Your task to perform on an android device: Search for Italian restaurants on Maps Image 0: 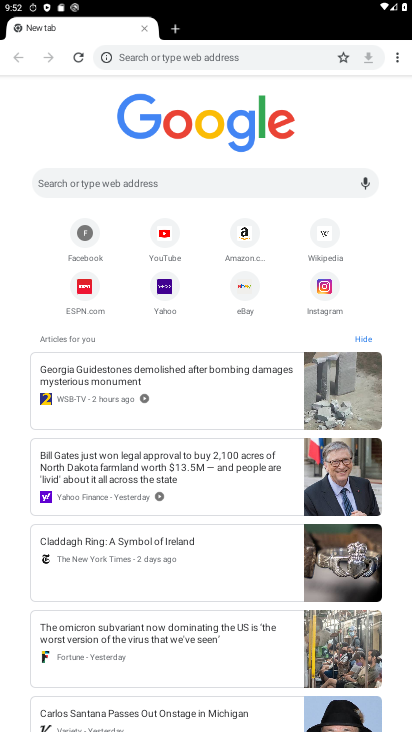
Step 0: press home button
Your task to perform on an android device: Search for Italian restaurants on Maps Image 1: 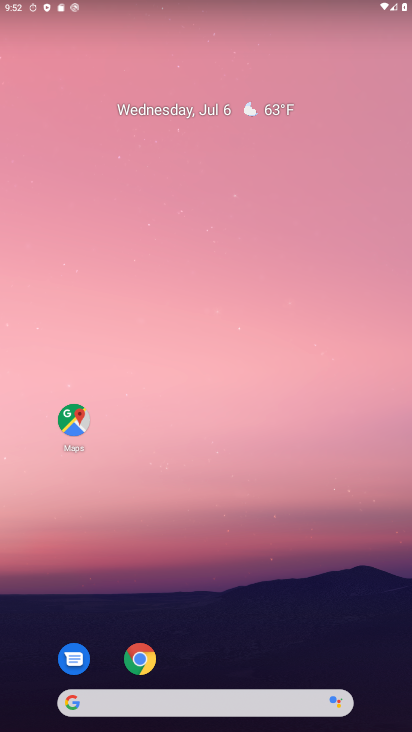
Step 1: drag from (192, 593) to (212, 389)
Your task to perform on an android device: Search for Italian restaurants on Maps Image 2: 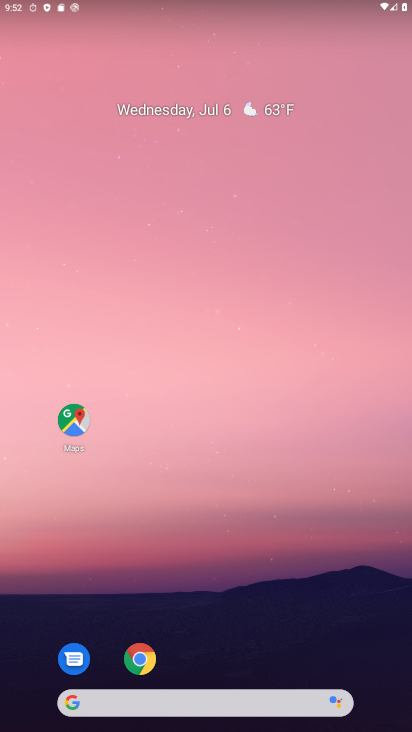
Step 2: drag from (178, 645) to (230, 286)
Your task to perform on an android device: Search for Italian restaurants on Maps Image 3: 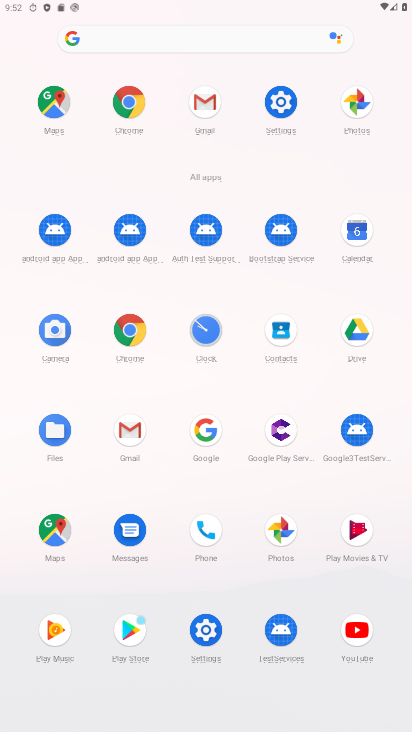
Step 3: click (53, 524)
Your task to perform on an android device: Search for Italian restaurants on Maps Image 4: 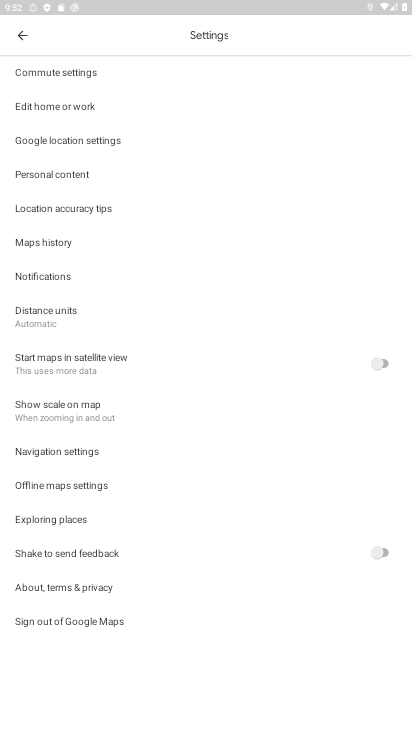
Step 4: click (11, 37)
Your task to perform on an android device: Search for Italian restaurants on Maps Image 5: 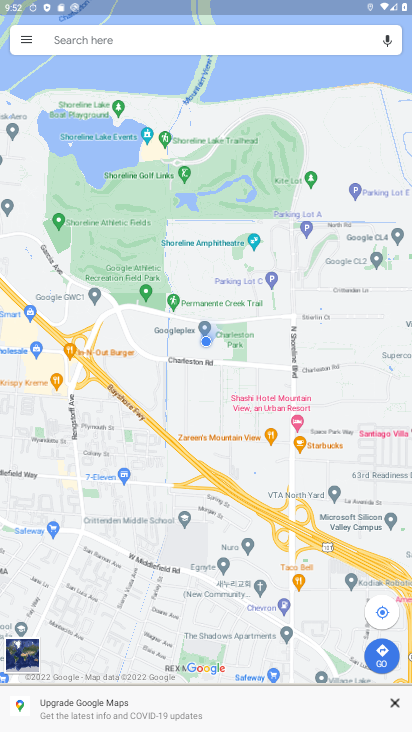
Step 5: click (83, 33)
Your task to perform on an android device: Search for Italian restaurants on Maps Image 6: 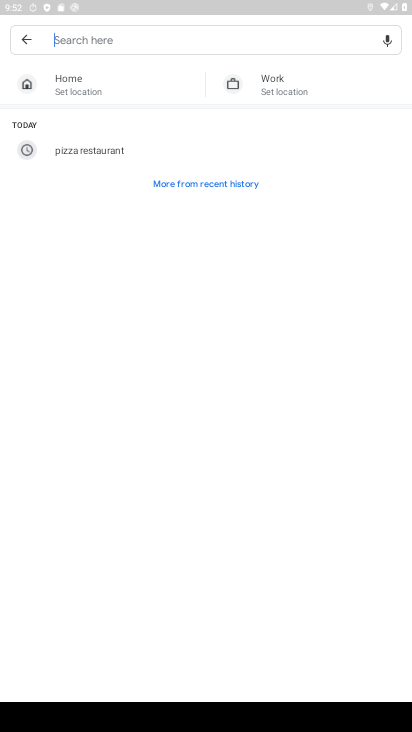
Step 6: click (110, 38)
Your task to perform on an android device: Search for Italian restaurants on Maps Image 7: 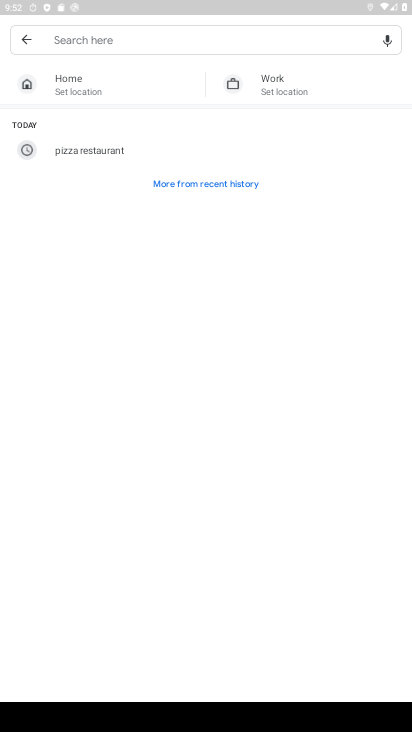
Step 7: type "Italian"
Your task to perform on an android device: Search for Italian restaurants on Maps Image 8: 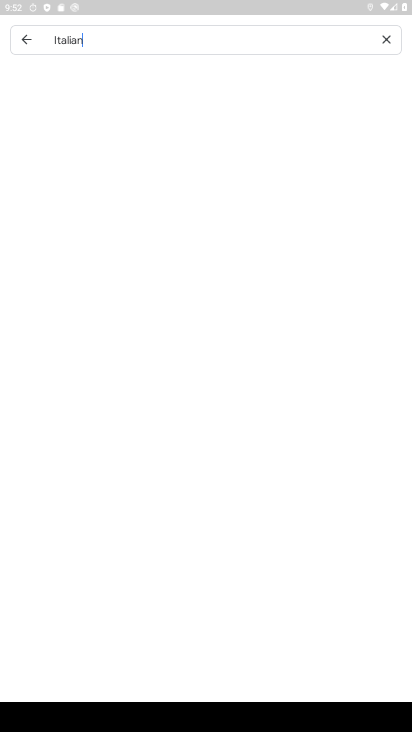
Step 8: type ""
Your task to perform on an android device: Search for Italian restaurants on Maps Image 9: 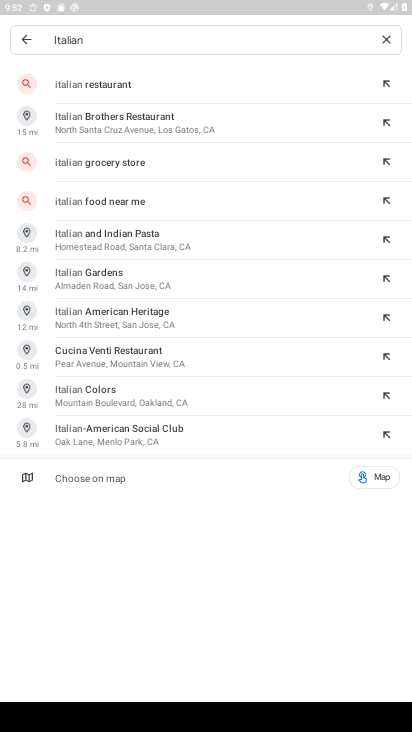
Step 9: click (221, 89)
Your task to perform on an android device: Search for Italian restaurants on Maps Image 10: 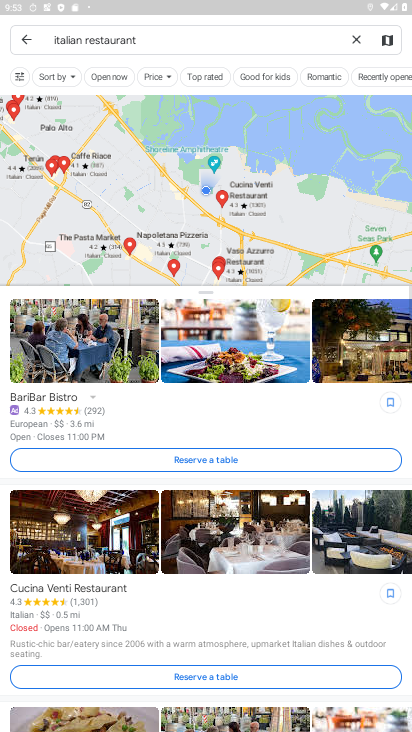
Step 10: task complete